Your task to perform on an android device: change timer sound Image 0: 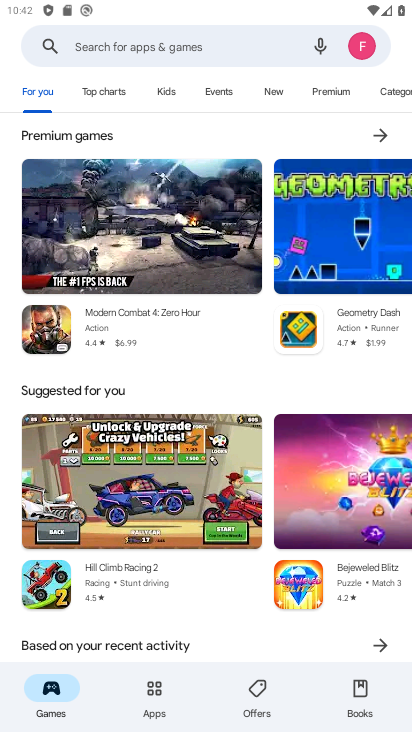
Step 0: press home button
Your task to perform on an android device: change timer sound Image 1: 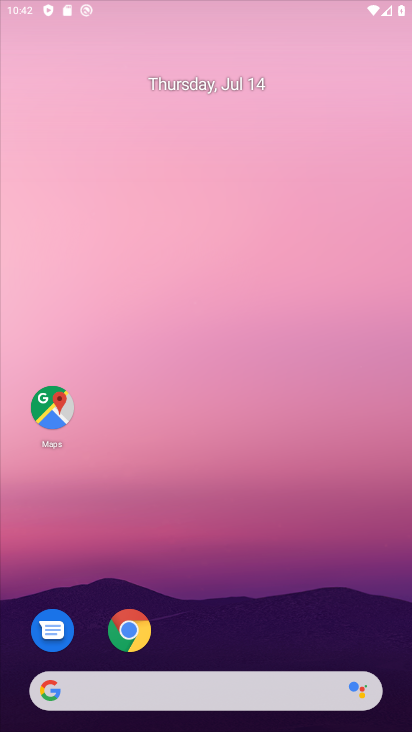
Step 1: drag from (215, 668) to (258, 108)
Your task to perform on an android device: change timer sound Image 2: 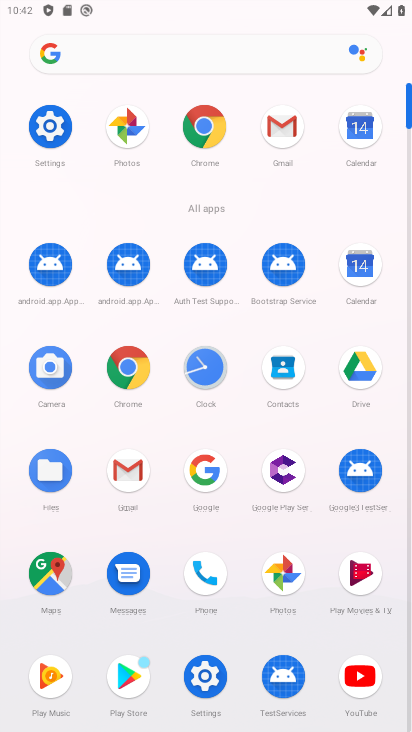
Step 2: click (201, 353)
Your task to perform on an android device: change timer sound Image 3: 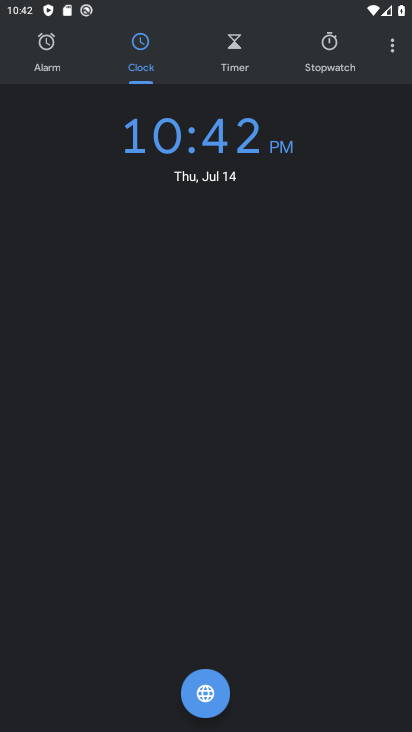
Step 3: click (387, 50)
Your task to perform on an android device: change timer sound Image 4: 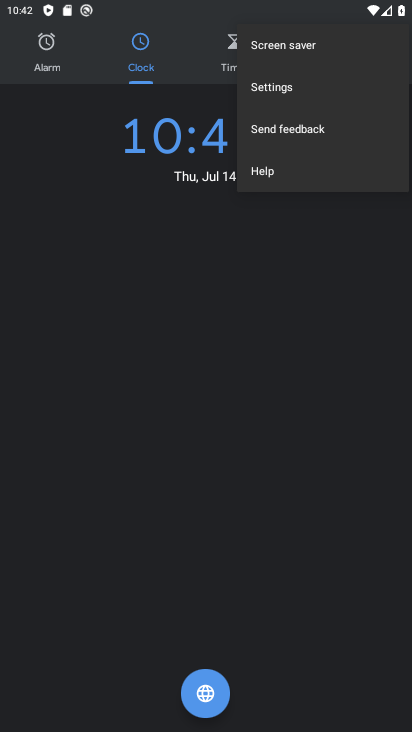
Step 4: click (291, 95)
Your task to perform on an android device: change timer sound Image 5: 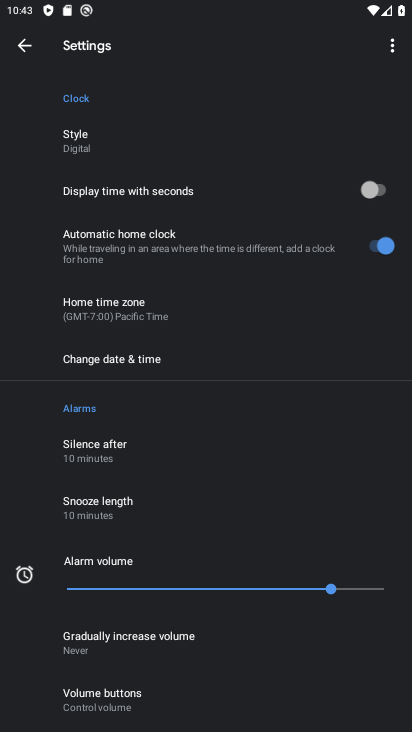
Step 5: drag from (163, 567) to (228, 9)
Your task to perform on an android device: change timer sound Image 6: 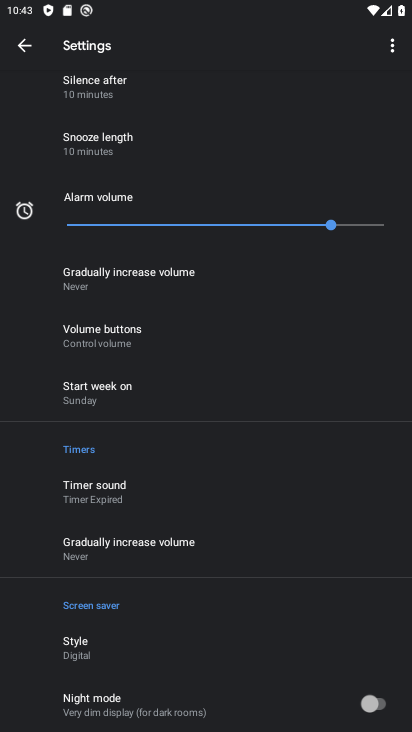
Step 6: click (98, 491)
Your task to perform on an android device: change timer sound Image 7: 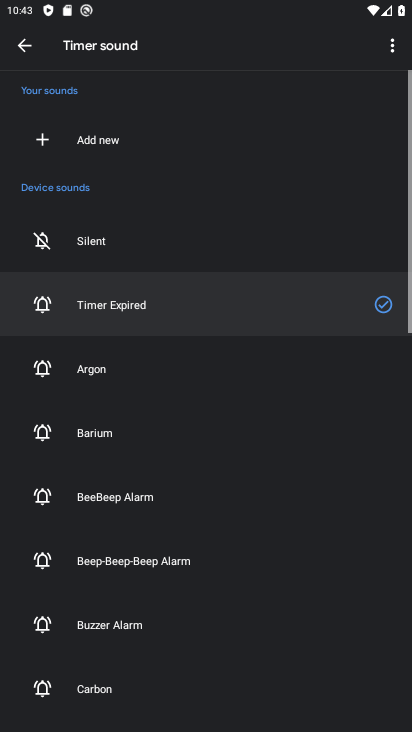
Step 7: click (98, 396)
Your task to perform on an android device: change timer sound Image 8: 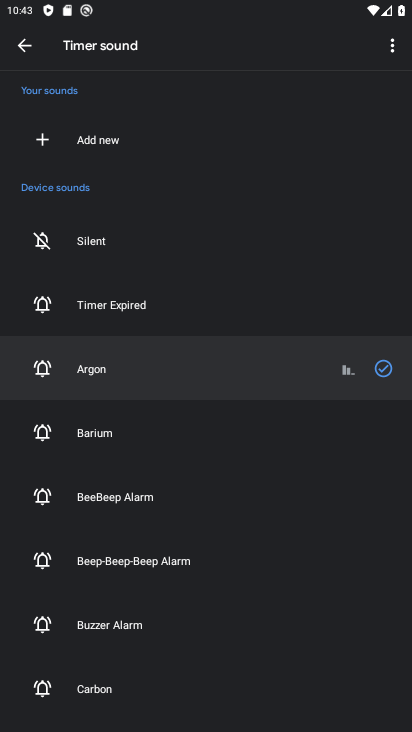
Step 8: task complete